Your task to perform on an android device: Do I have any events this weekend? Image 0: 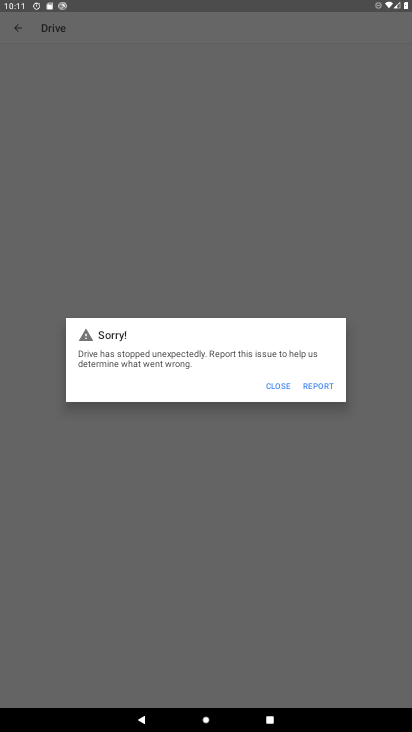
Step 0: press home button
Your task to perform on an android device: Do I have any events this weekend? Image 1: 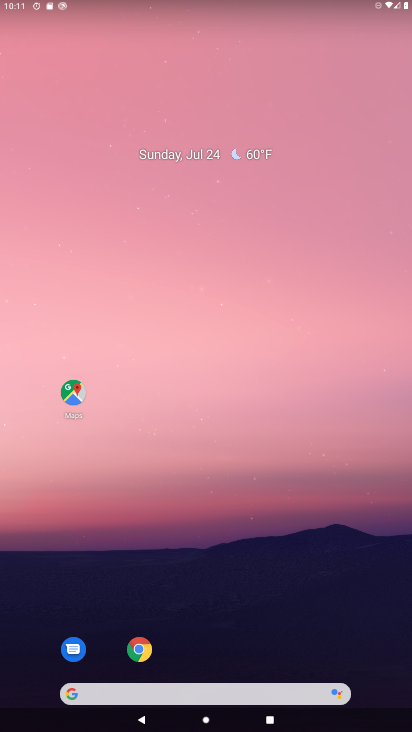
Step 1: drag from (358, 593) to (223, 97)
Your task to perform on an android device: Do I have any events this weekend? Image 2: 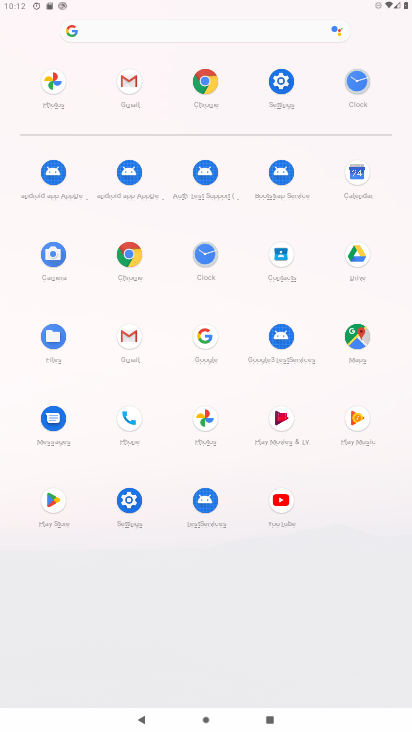
Step 2: click (358, 176)
Your task to perform on an android device: Do I have any events this weekend? Image 3: 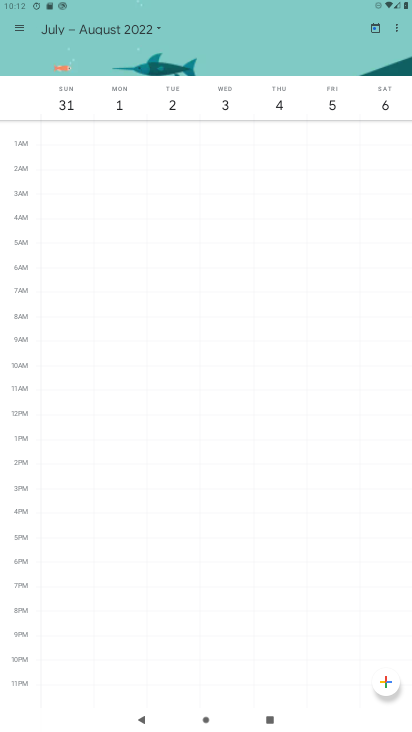
Step 3: click (56, 27)
Your task to perform on an android device: Do I have any events this weekend? Image 4: 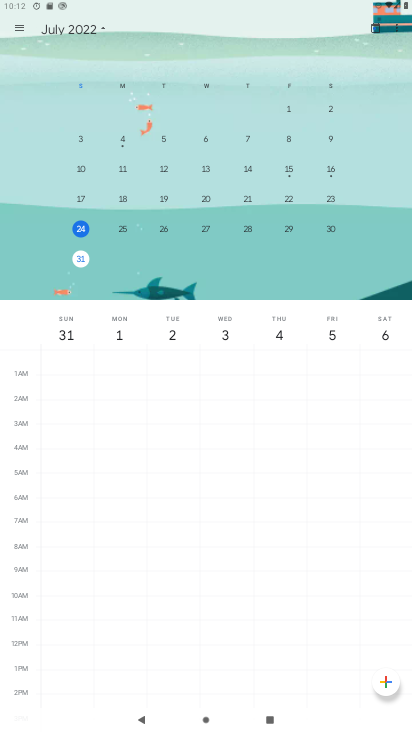
Step 4: click (80, 226)
Your task to perform on an android device: Do I have any events this weekend? Image 5: 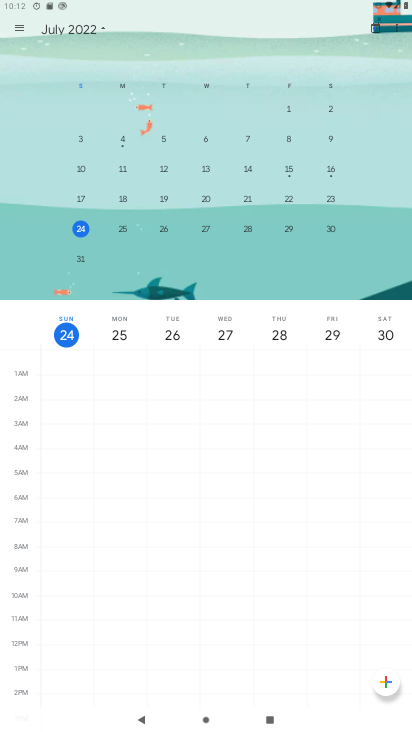
Step 5: task complete